Your task to perform on an android device: turn on the 24-hour format for clock Image 0: 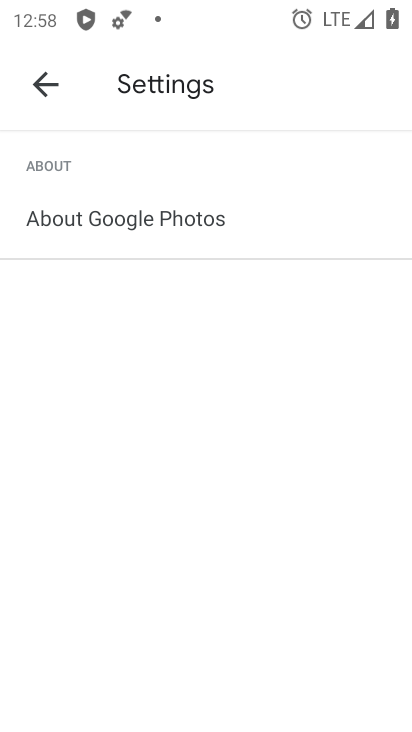
Step 0: press home button
Your task to perform on an android device: turn on the 24-hour format for clock Image 1: 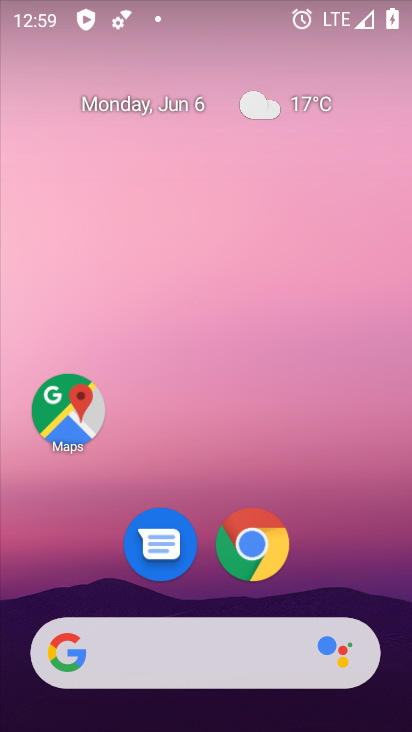
Step 1: drag from (396, 604) to (368, 199)
Your task to perform on an android device: turn on the 24-hour format for clock Image 2: 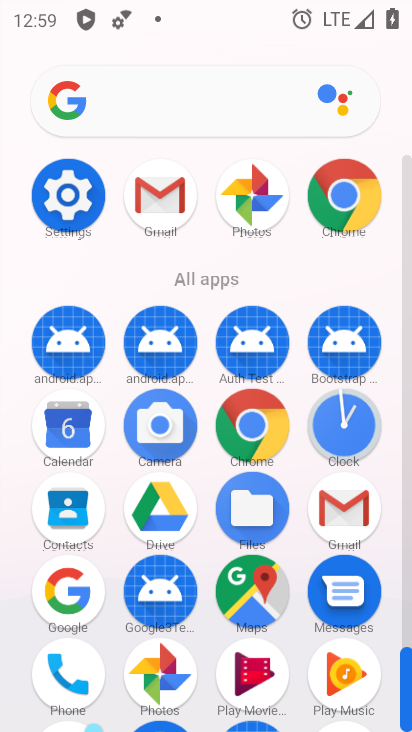
Step 2: click (348, 444)
Your task to perform on an android device: turn on the 24-hour format for clock Image 3: 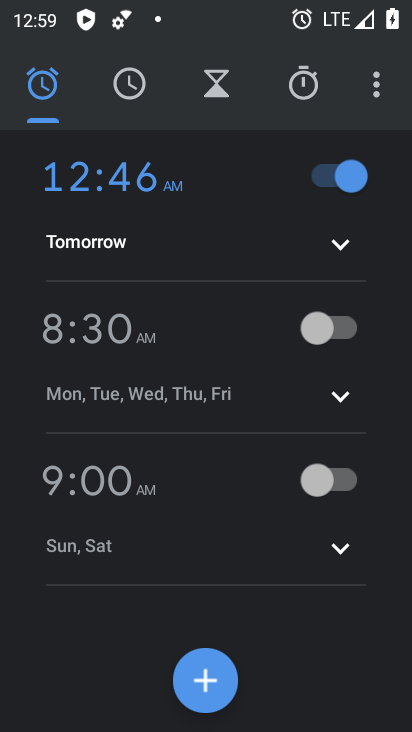
Step 3: click (366, 81)
Your task to perform on an android device: turn on the 24-hour format for clock Image 4: 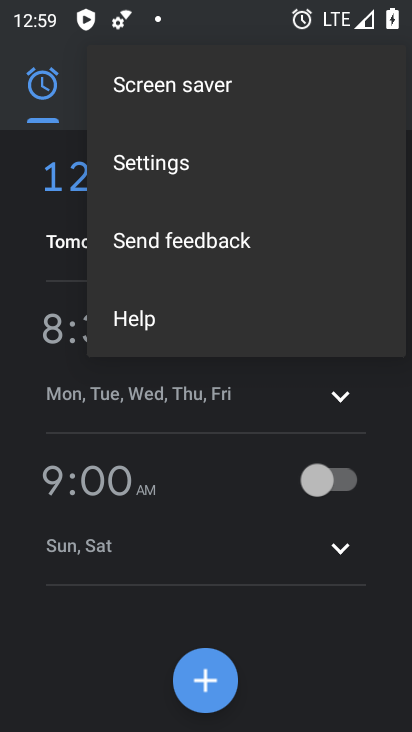
Step 4: click (303, 154)
Your task to perform on an android device: turn on the 24-hour format for clock Image 5: 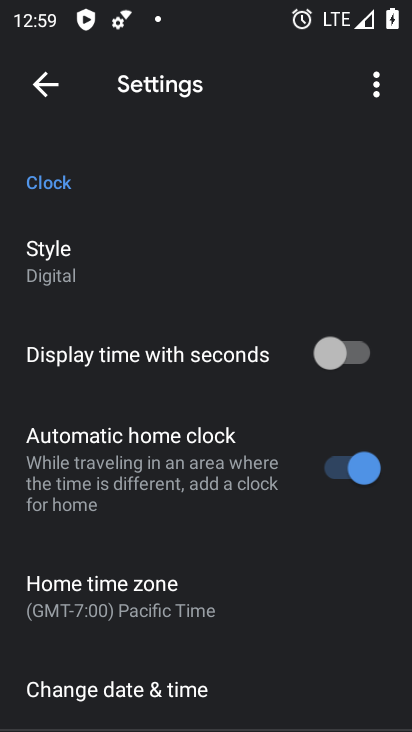
Step 5: drag from (301, 665) to (251, 305)
Your task to perform on an android device: turn on the 24-hour format for clock Image 6: 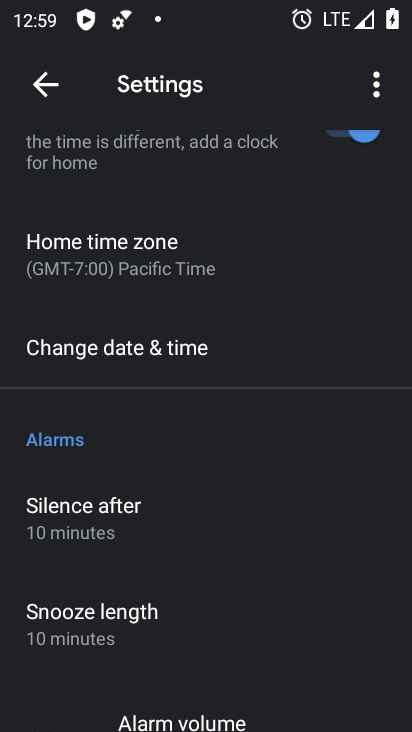
Step 6: click (236, 360)
Your task to perform on an android device: turn on the 24-hour format for clock Image 7: 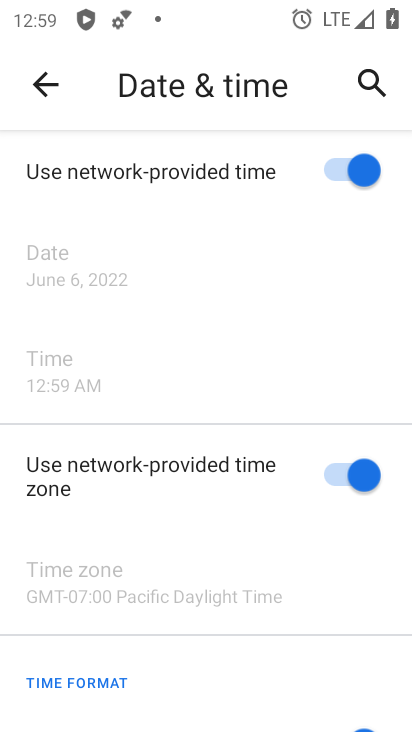
Step 7: drag from (273, 669) to (248, 207)
Your task to perform on an android device: turn on the 24-hour format for clock Image 8: 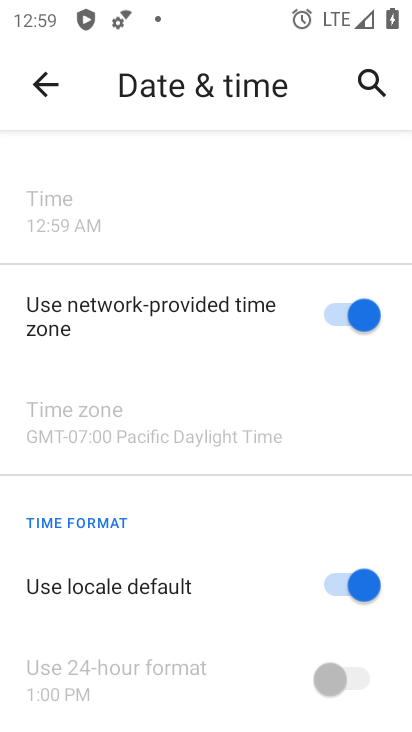
Step 8: click (345, 587)
Your task to perform on an android device: turn on the 24-hour format for clock Image 9: 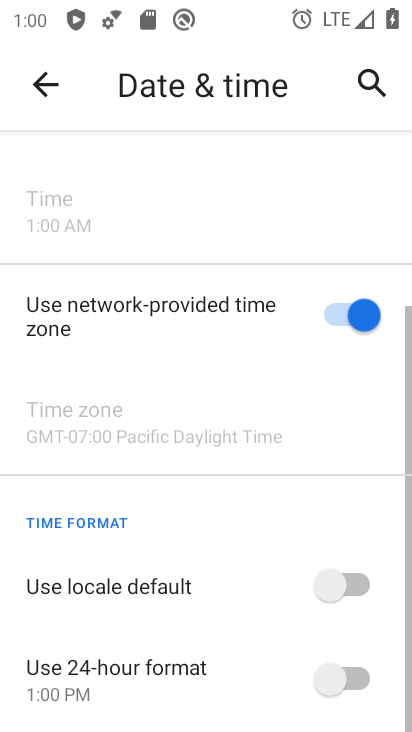
Step 9: click (350, 688)
Your task to perform on an android device: turn on the 24-hour format for clock Image 10: 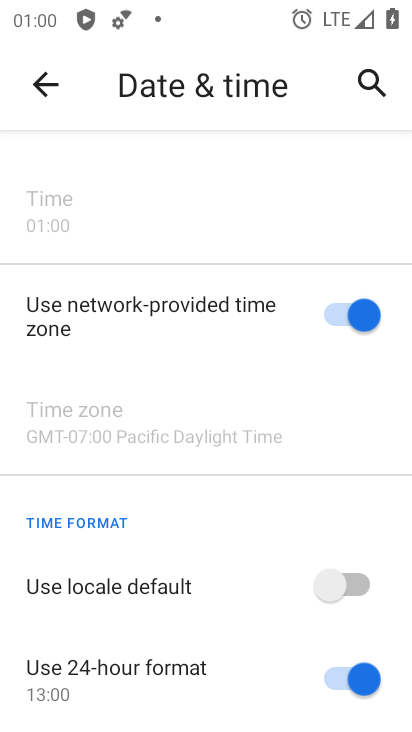
Step 10: task complete